Your task to perform on an android device: What is the recent news? Image 0: 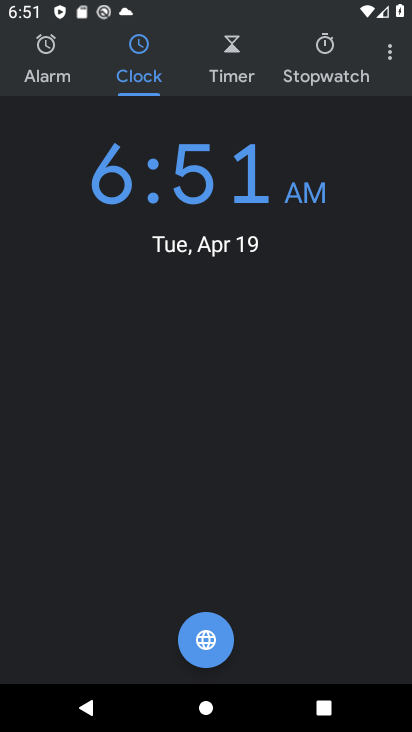
Step 0: press home button
Your task to perform on an android device: What is the recent news? Image 1: 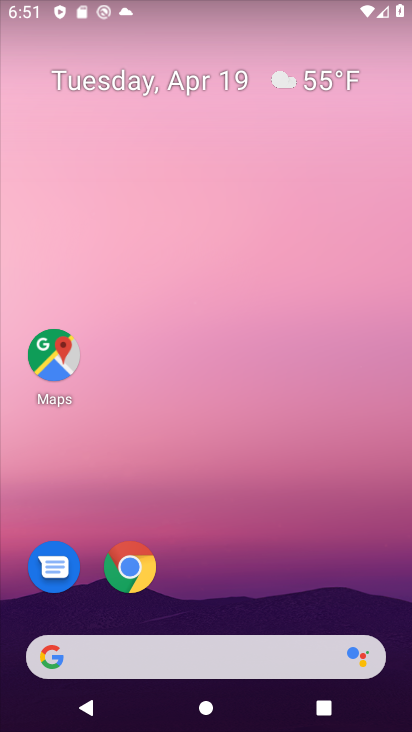
Step 1: click (123, 558)
Your task to perform on an android device: What is the recent news? Image 2: 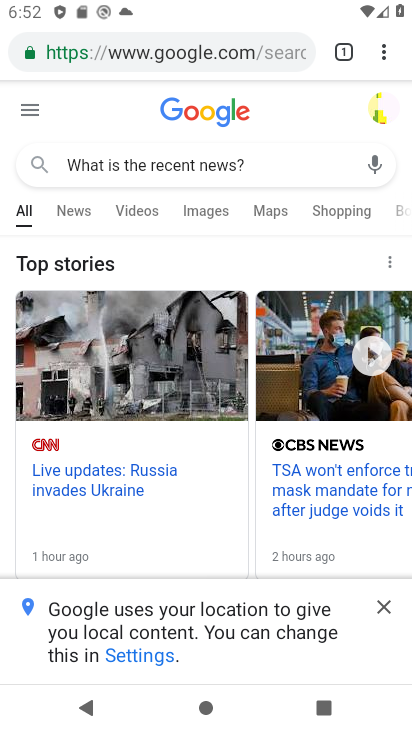
Step 2: task complete